Your task to perform on an android device: turn off location Image 0: 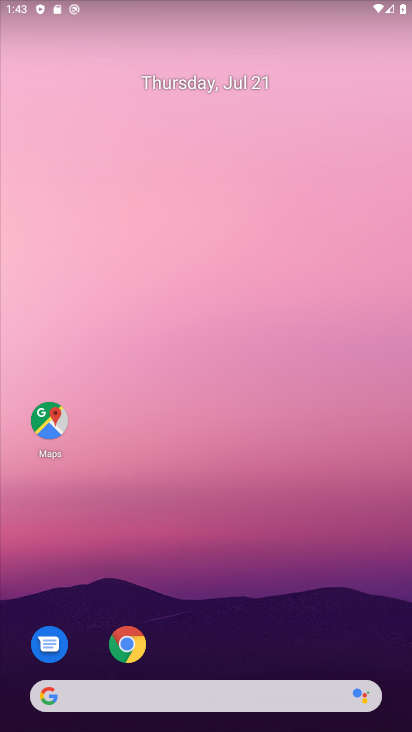
Step 0: drag from (245, 650) to (306, 2)
Your task to perform on an android device: turn off location Image 1: 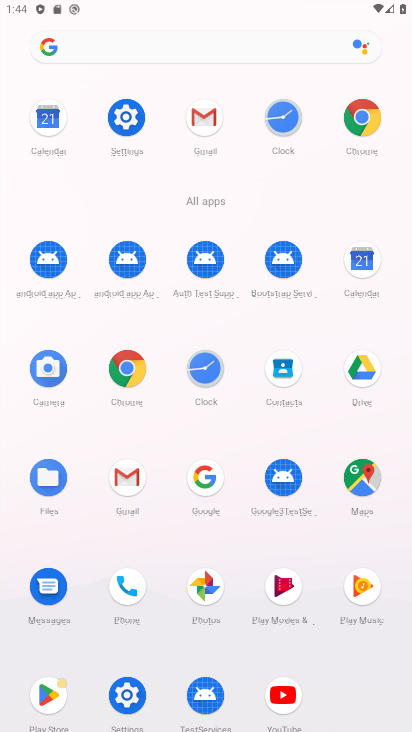
Step 1: click (114, 131)
Your task to perform on an android device: turn off location Image 2: 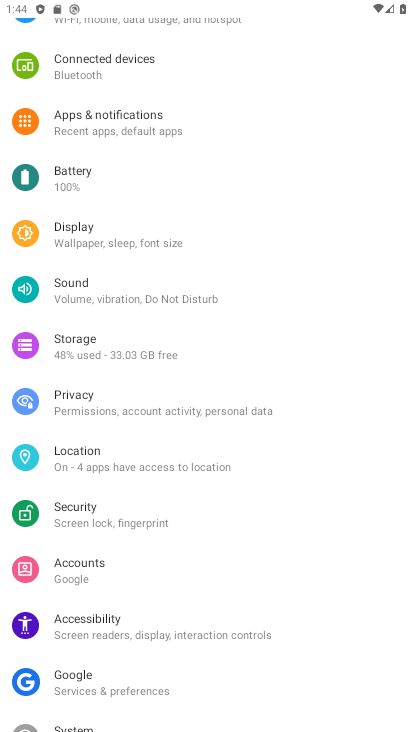
Step 2: click (79, 466)
Your task to perform on an android device: turn off location Image 3: 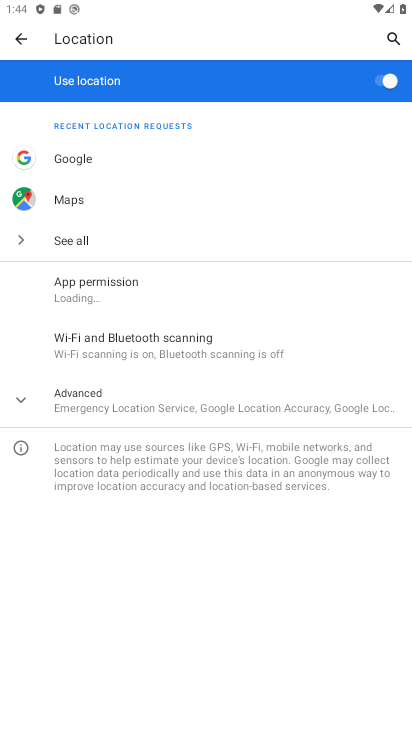
Step 3: click (164, 397)
Your task to perform on an android device: turn off location Image 4: 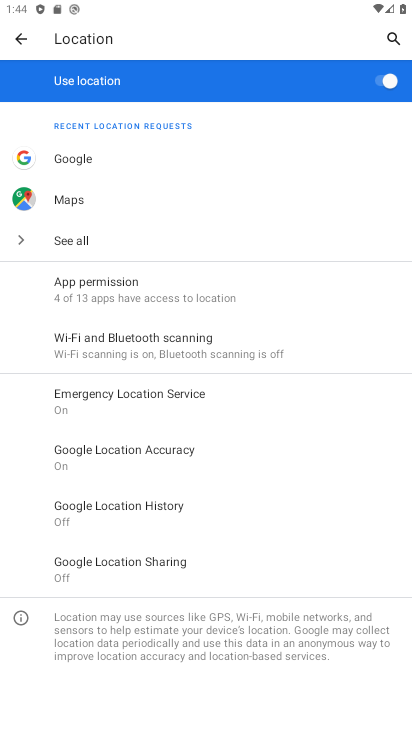
Step 4: click (369, 89)
Your task to perform on an android device: turn off location Image 5: 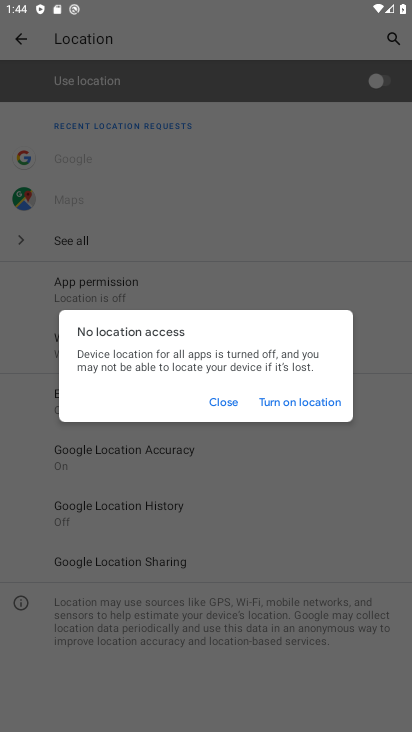
Step 5: task complete